Your task to perform on an android device: check storage Image 0: 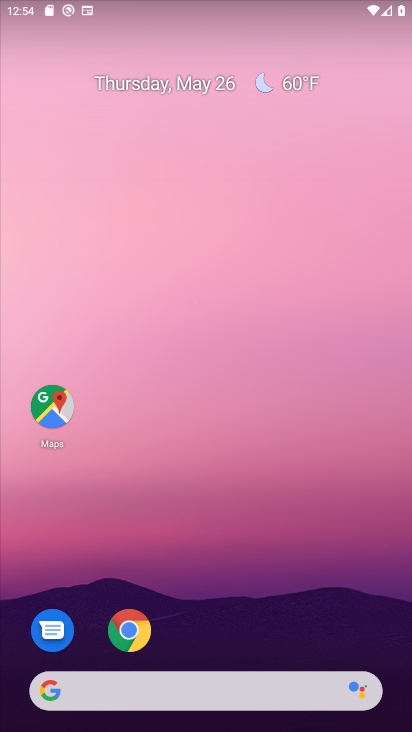
Step 0: drag from (286, 602) to (272, 33)
Your task to perform on an android device: check storage Image 1: 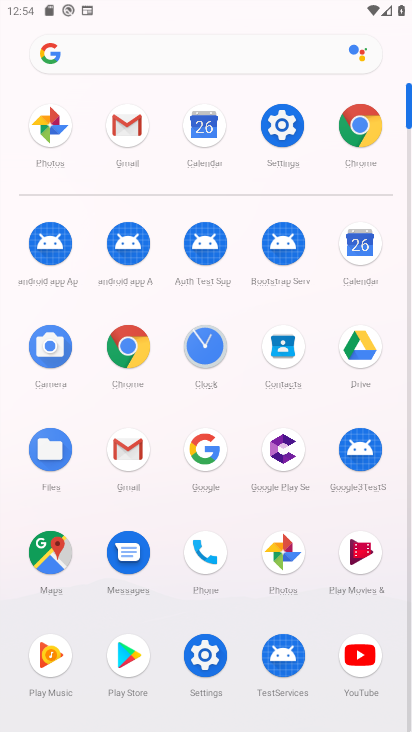
Step 1: click (284, 135)
Your task to perform on an android device: check storage Image 2: 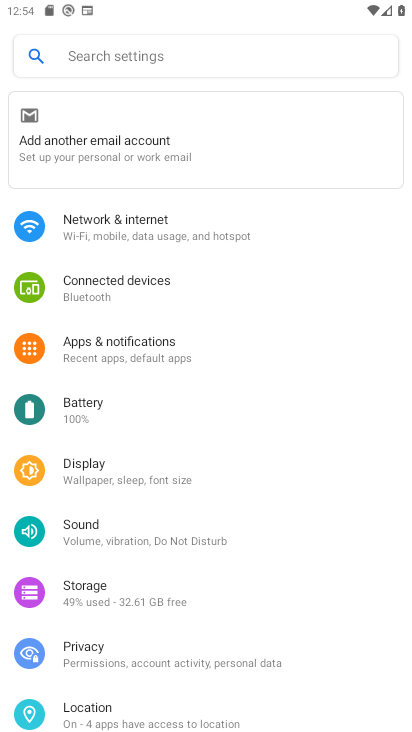
Step 2: click (109, 601)
Your task to perform on an android device: check storage Image 3: 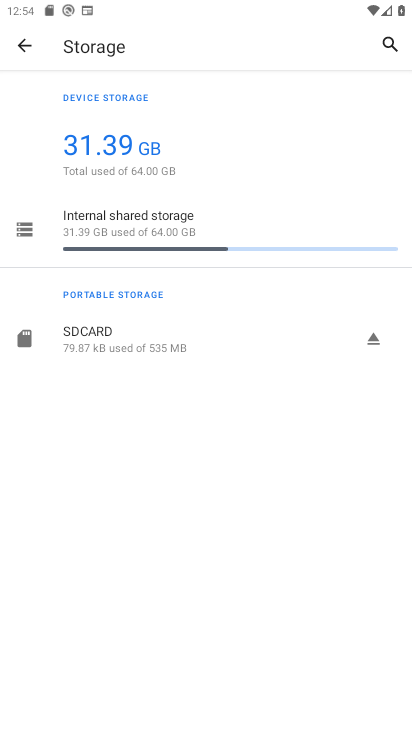
Step 3: click (89, 219)
Your task to perform on an android device: check storage Image 4: 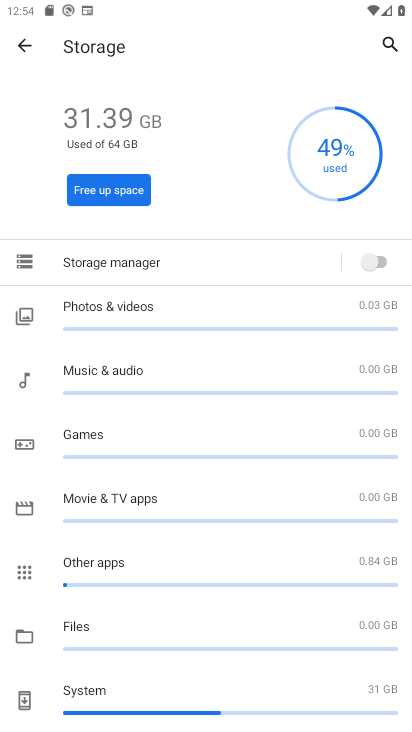
Step 4: task complete